Your task to perform on an android device: check battery use Image 0: 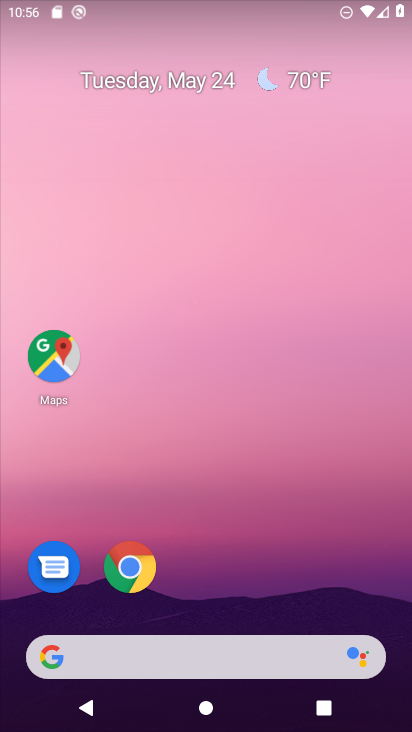
Step 0: drag from (393, 697) to (403, 261)
Your task to perform on an android device: check battery use Image 1: 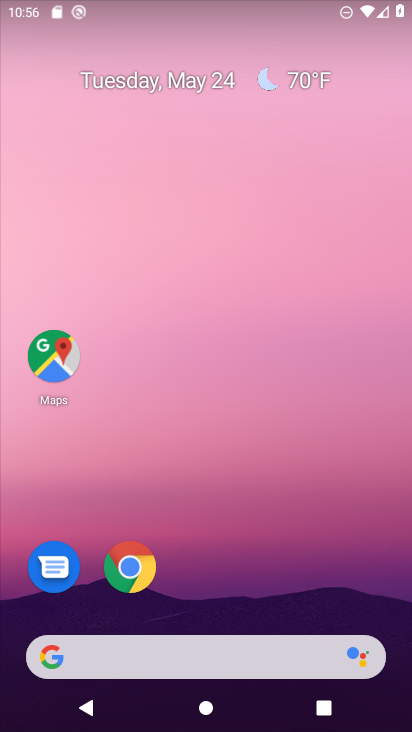
Step 1: drag from (401, 693) to (386, 297)
Your task to perform on an android device: check battery use Image 2: 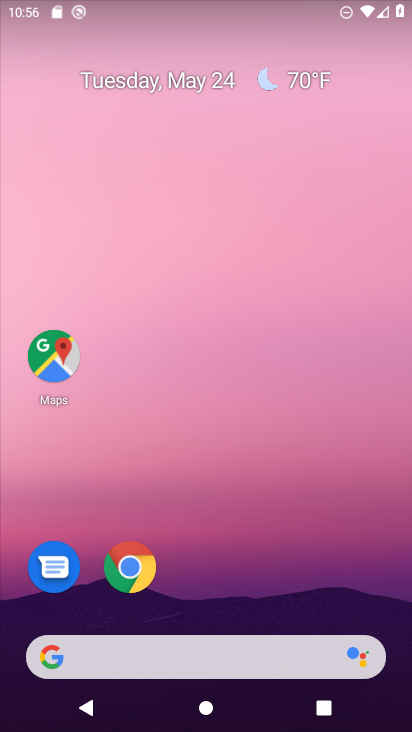
Step 2: drag from (393, 672) to (390, 138)
Your task to perform on an android device: check battery use Image 3: 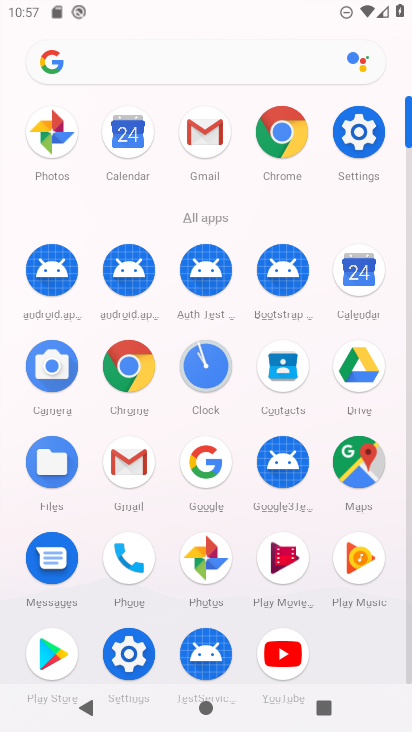
Step 3: click (130, 664)
Your task to perform on an android device: check battery use Image 4: 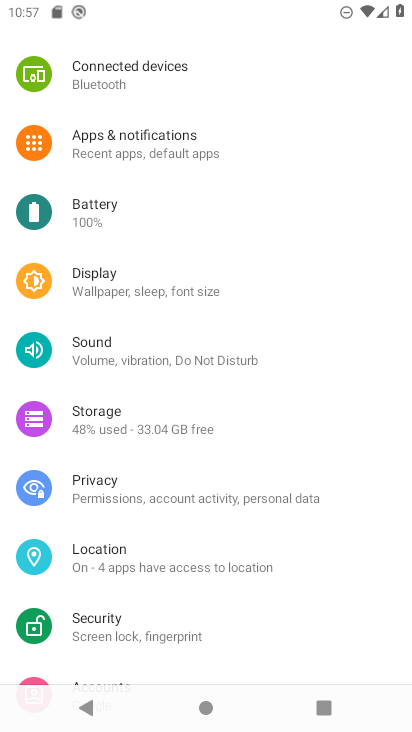
Step 4: click (90, 204)
Your task to perform on an android device: check battery use Image 5: 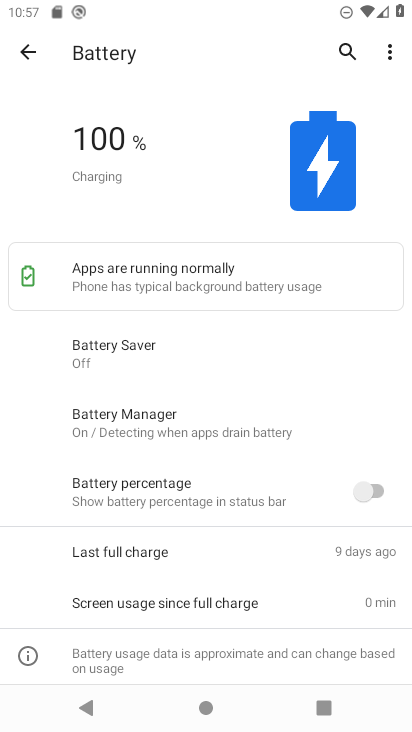
Step 5: task complete